Your task to perform on an android device: move an email to a new category in the gmail app Image 0: 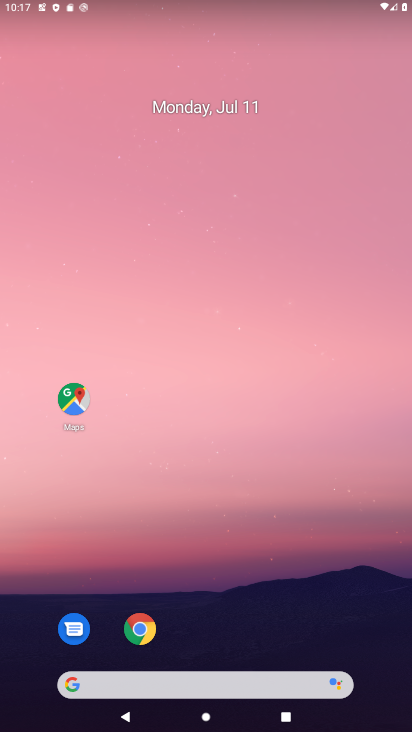
Step 0: drag from (222, 638) to (234, 215)
Your task to perform on an android device: move an email to a new category in the gmail app Image 1: 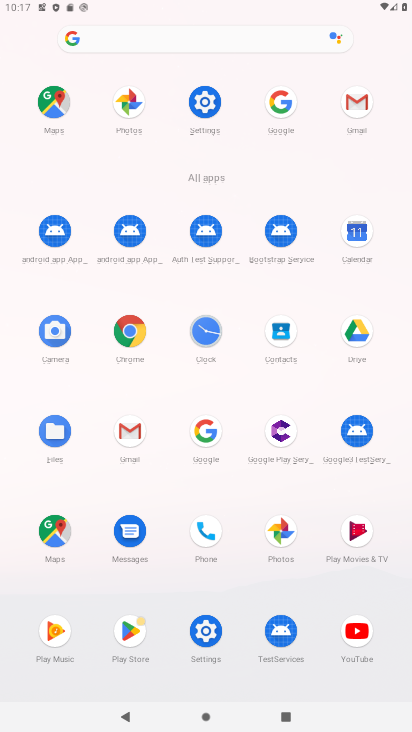
Step 1: click (346, 106)
Your task to perform on an android device: move an email to a new category in the gmail app Image 2: 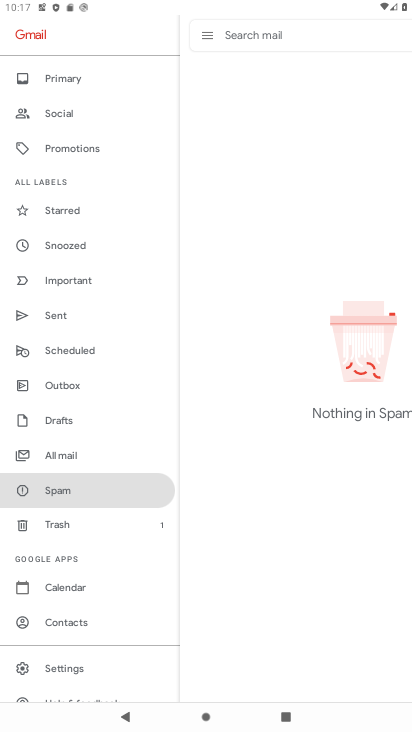
Step 2: click (69, 462)
Your task to perform on an android device: move an email to a new category in the gmail app Image 3: 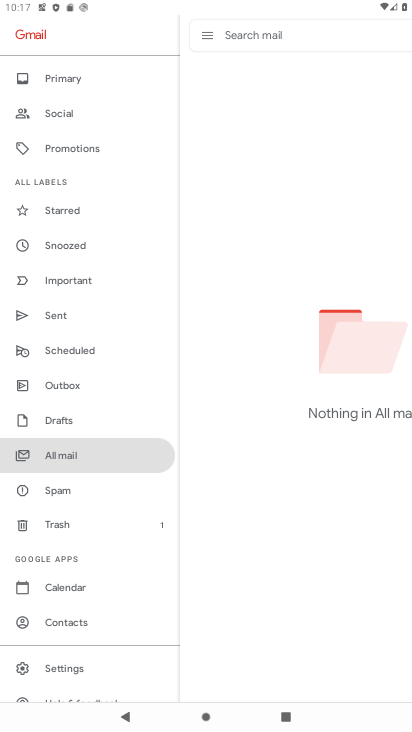
Step 3: task complete